Your task to perform on an android device: turn on location history Image 0: 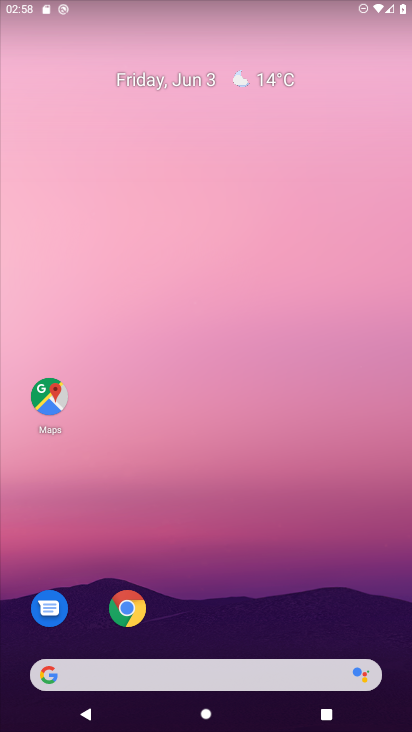
Step 0: drag from (341, 604) to (180, 169)
Your task to perform on an android device: turn on location history Image 1: 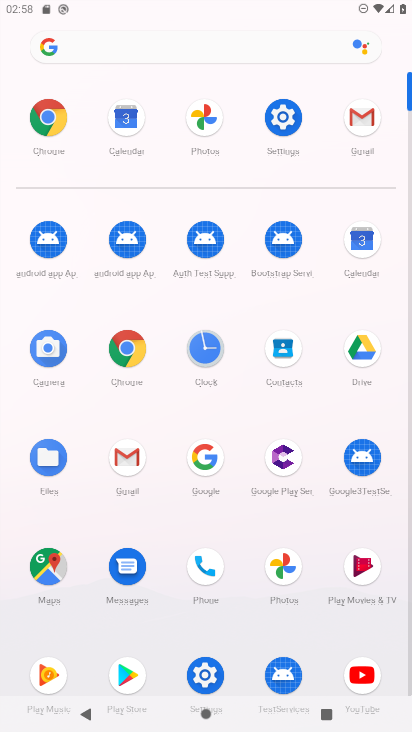
Step 1: click (295, 108)
Your task to perform on an android device: turn on location history Image 2: 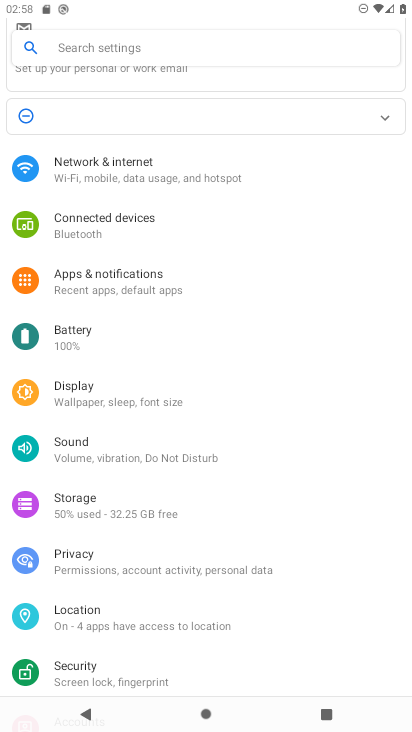
Step 2: click (84, 607)
Your task to perform on an android device: turn on location history Image 3: 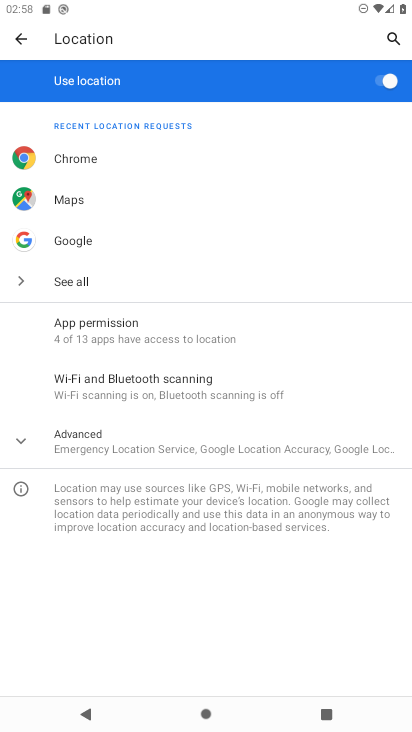
Step 3: click (108, 434)
Your task to perform on an android device: turn on location history Image 4: 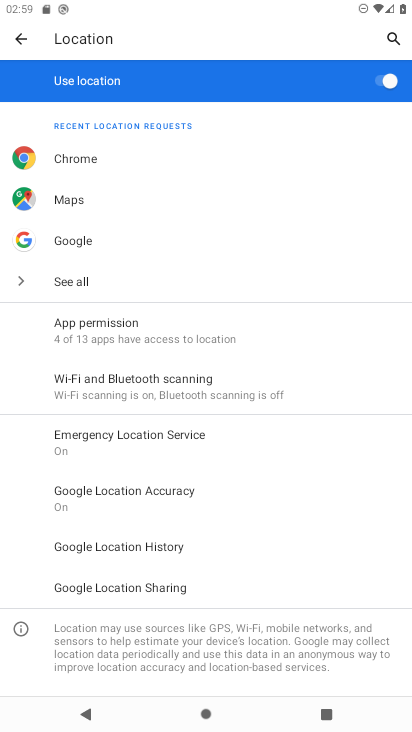
Step 4: click (120, 542)
Your task to perform on an android device: turn on location history Image 5: 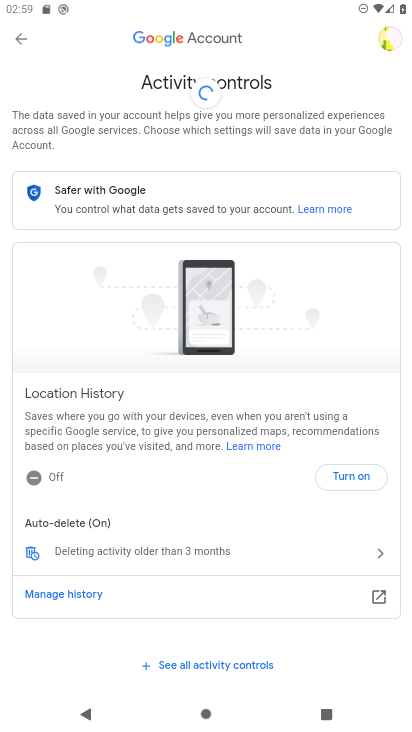
Step 5: click (345, 478)
Your task to perform on an android device: turn on location history Image 6: 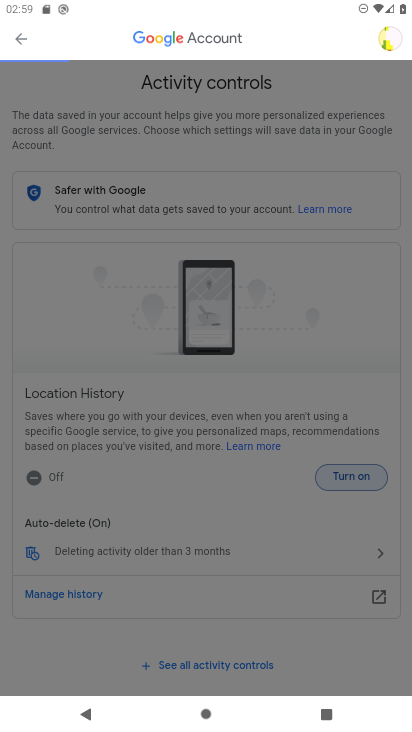
Step 6: click (345, 478)
Your task to perform on an android device: turn on location history Image 7: 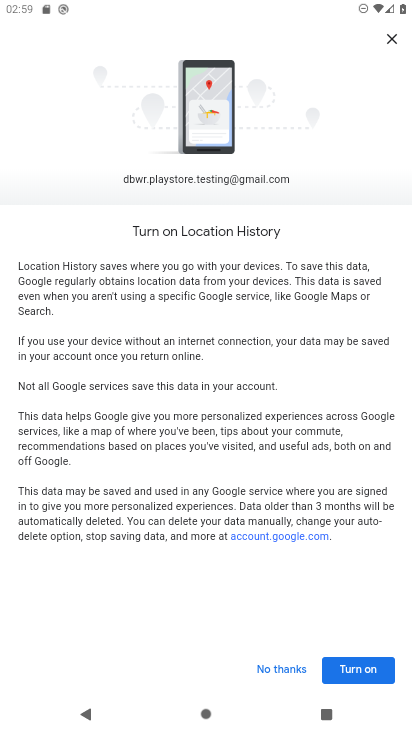
Step 7: click (352, 663)
Your task to perform on an android device: turn on location history Image 8: 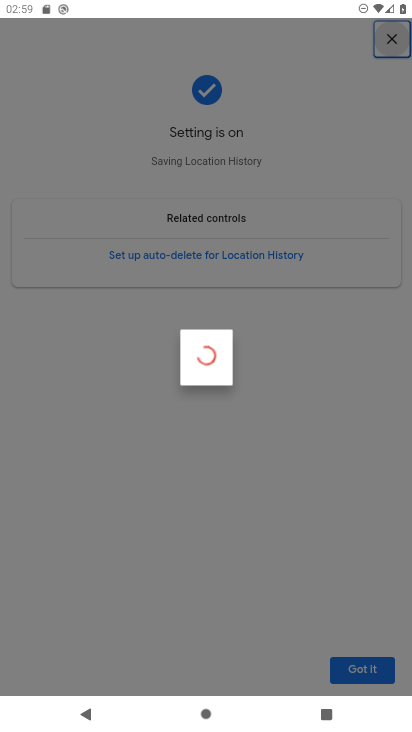
Step 8: click (361, 665)
Your task to perform on an android device: turn on location history Image 9: 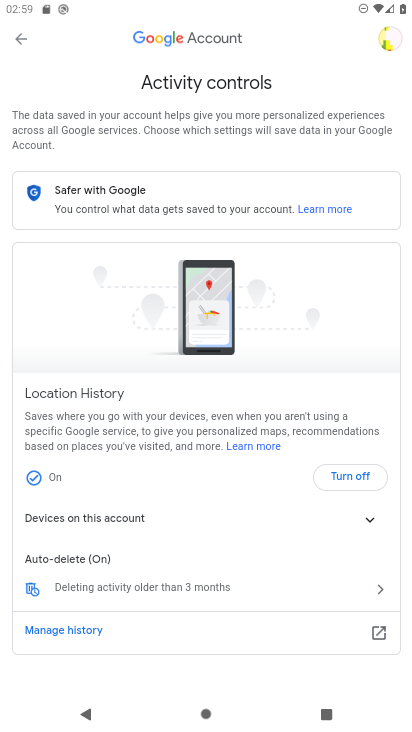
Step 9: task complete